Your task to perform on an android device: Open the stopwatch Image 0: 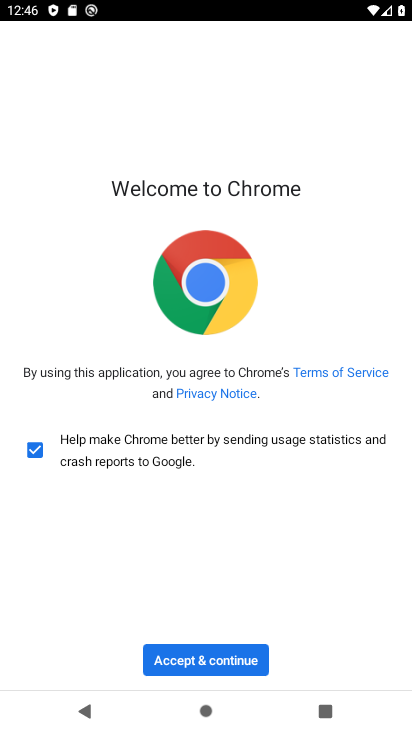
Step 0: drag from (190, 673) to (397, 352)
Your task to perform on an android device: Open the stopwatch Image 1: 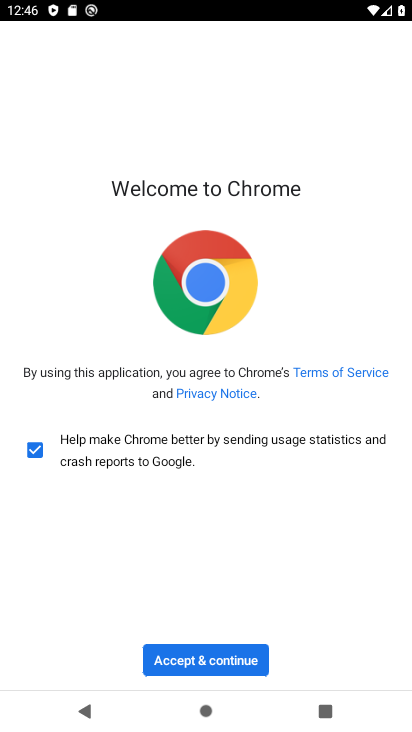
Step 1: press home button
Your task to perform on an android device: Open the stopwatch Image 2: 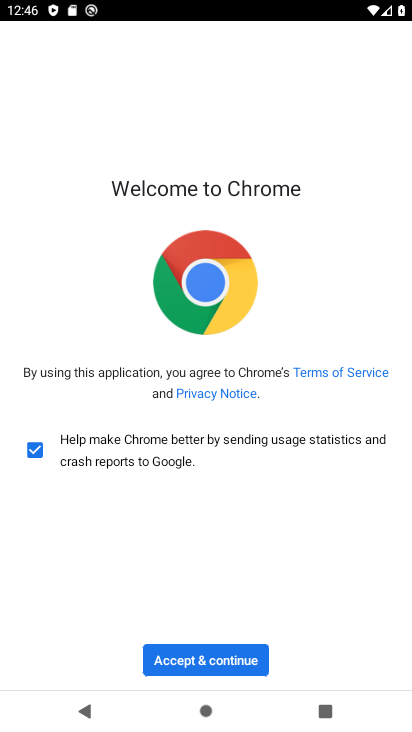
Step 2: click (397, 352)
Your task to perform on an android device: Open the stopwatch Image 3: 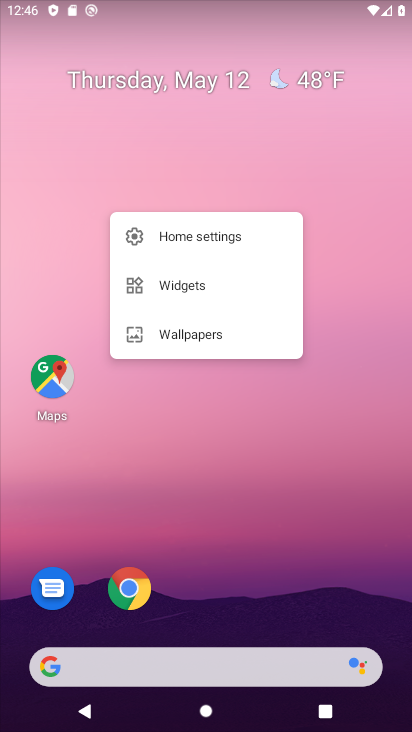
Step 3: drag from (227, 604) to (234, 82)
Your task to perform on an android device: Open the stopwatch Image 4: 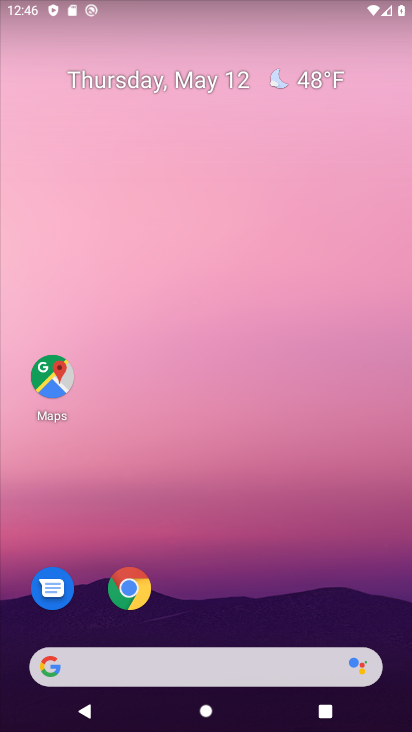
Step 4: drag from (222, 612) to (279, 115)
Your task to perform on an android device: Open the stopwatch Image 5: 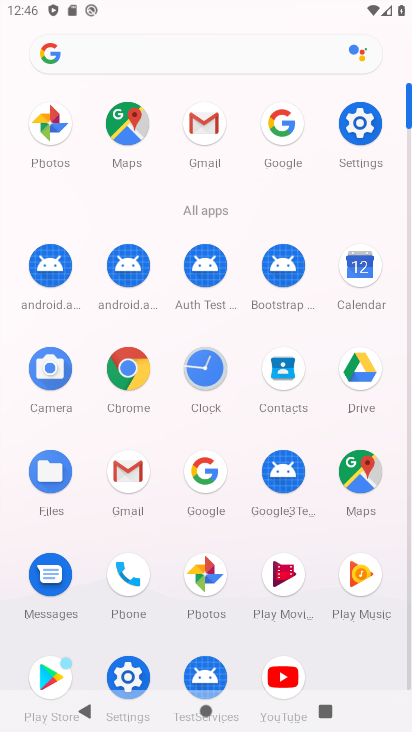
Step 5: click (209, 384)
Your task to perform on an android device: Open the stopwatch Image 6: 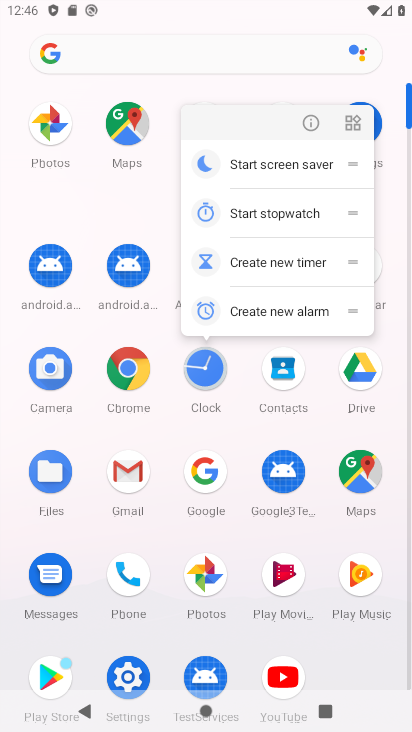
Step 6: click (210, 356)
Your task to perform on an android device: Open the stopwatch Image 7: 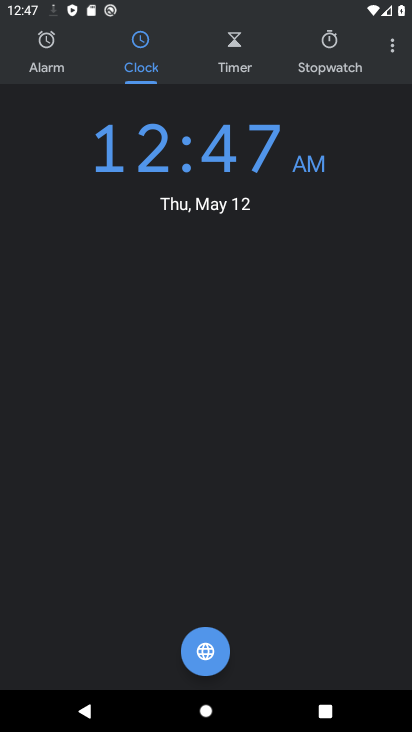
Step 7: click (331, 53)
Your task to perform on an android device: Open the stopwatch Image 8: 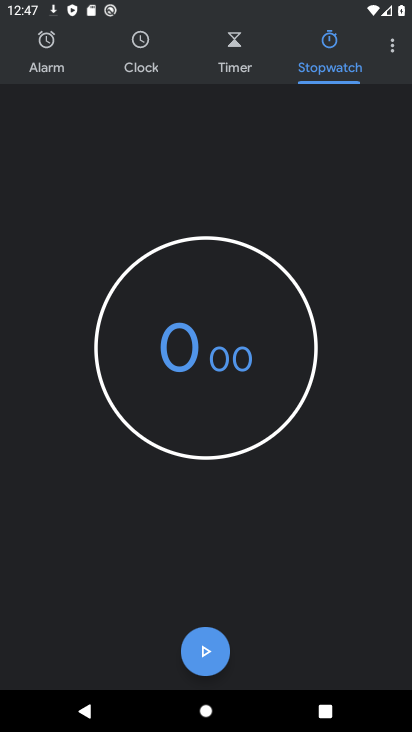
Step 8: click (206, 646)
Your task to perform on an android device: Open the stopwatch Image 9: 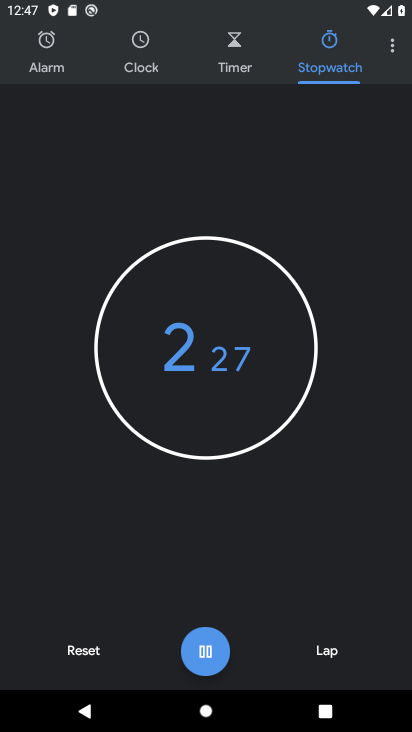
Step 9: task complete